Your task to perform on an android device: turn on airplane mode Image 0: 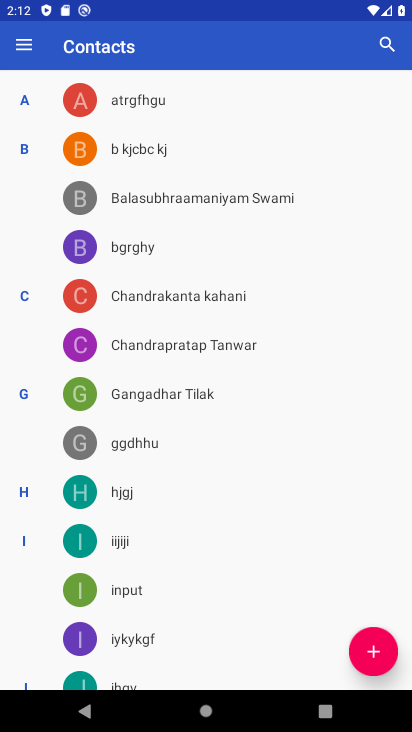
Step 0: press home button
Your task to perform on an android device: turn on airplane mode Image 1: 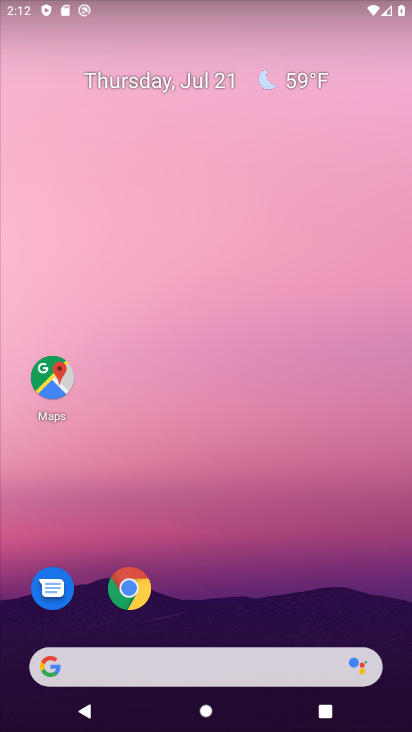
Step 1: drag from (387, 692) to (350, 115)
Your task to perform on an android device: turn on airplane mode Image 2: 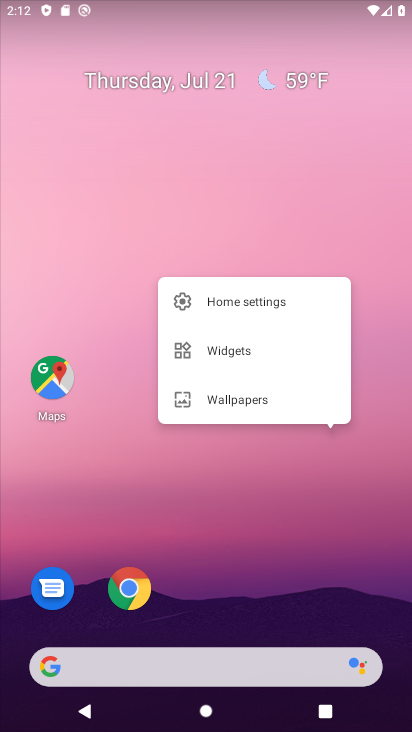
Step 2: press back button
Your task to perform on an android device: turn on airplane mode Image 3: 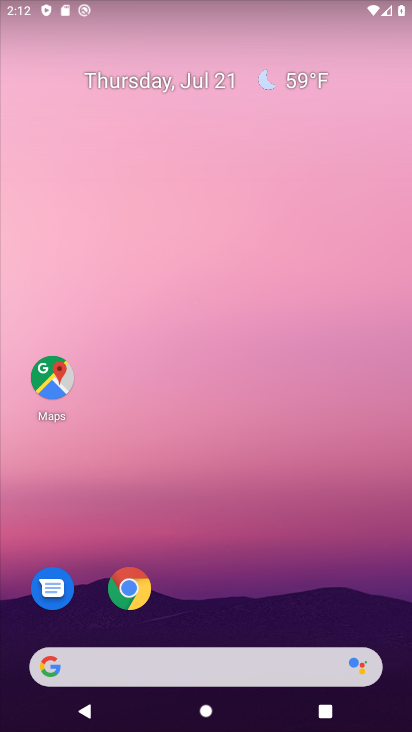
Step 3: drag from (393, 688) to (356, 137)
Your task to perform on an android device: turn on airplane mode Image 4: 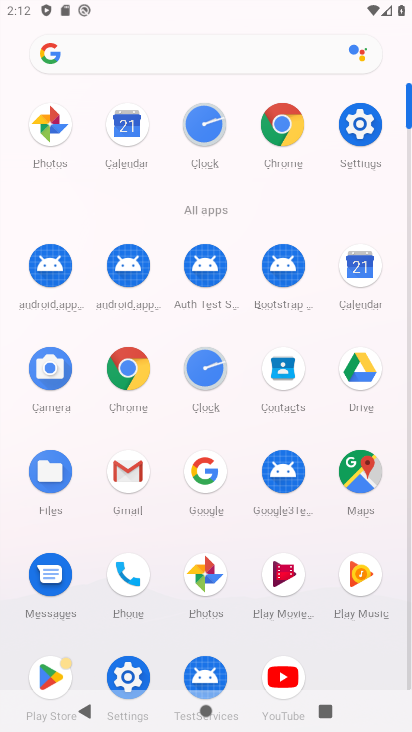
Step 4: click (355, 128)
Your task to perform on an android device: turn on airplane mode Image 5: 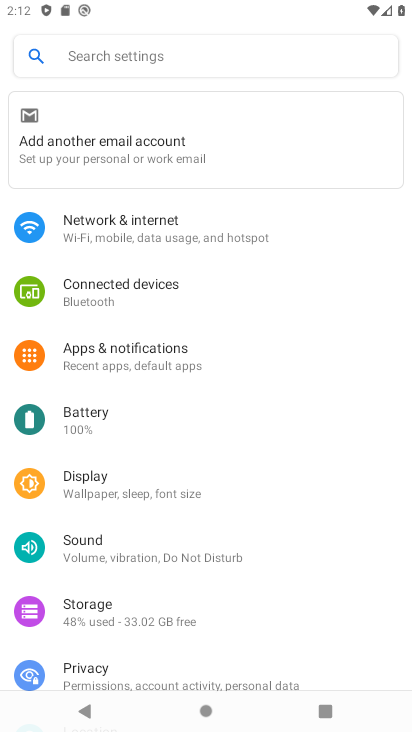
Step 5: click (116, 238)
Your task to perform on an android device: turn on airplane mode Image 6: 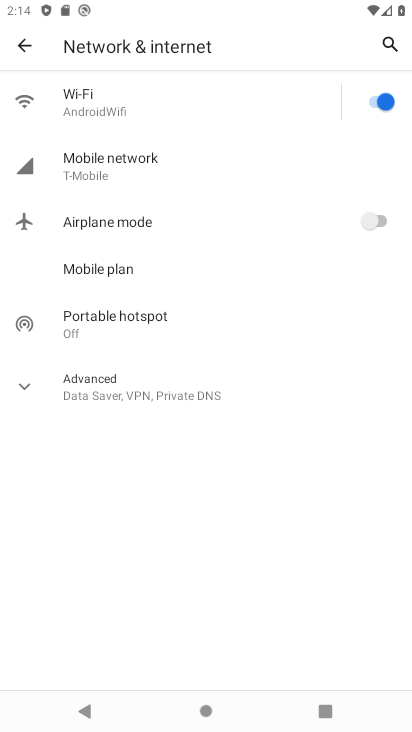
Step 6: click (374, 220)
Your task to perform on an android device: turn on airplane mode Image 7: 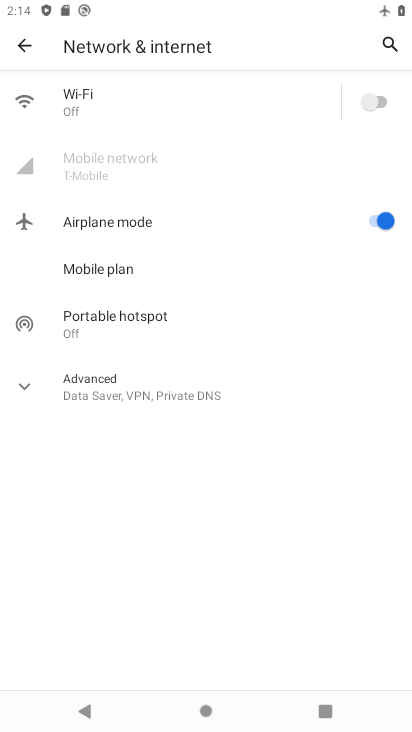
Step 7: click (379, 215)
Your task to perform on an android device: turn on airplane mode Image 8: 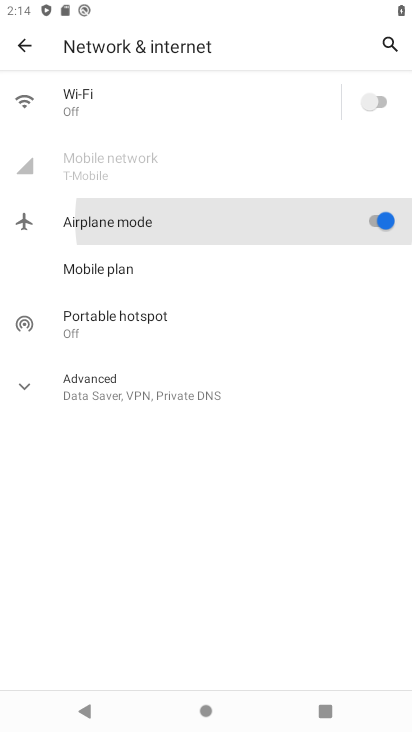
Step 8: task complete